Your task to perform on an android device: Is it going to rain today? Image 0: 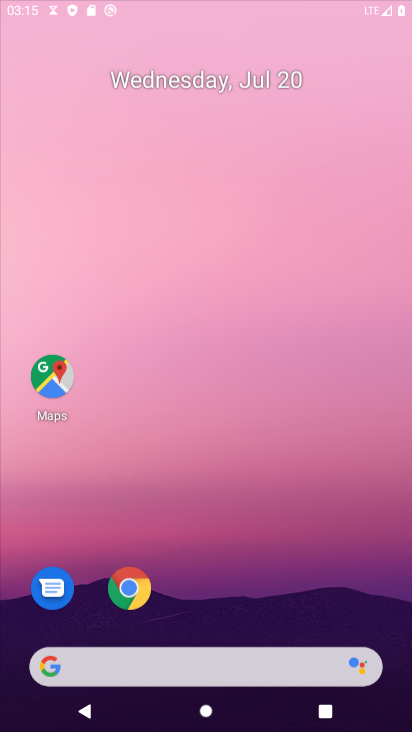
Step 0: drag from (222, 333) to (384, 17)
Your task to perform on an android device: Is it going to rain today? Image 1: 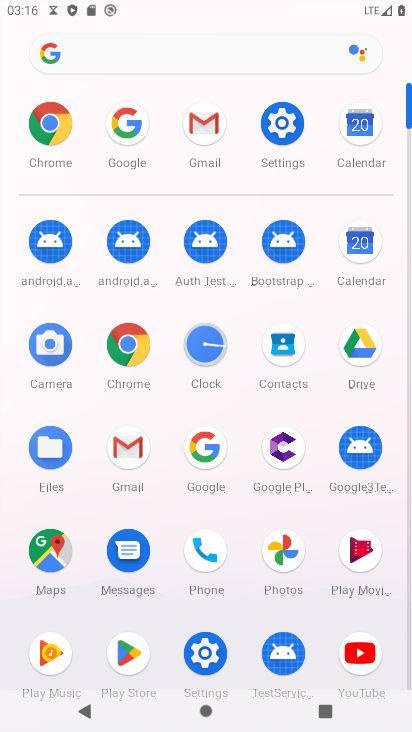
Step 1: click (209, 43)
Your task to perform on an android device: Is it going to rain today? Image 2: 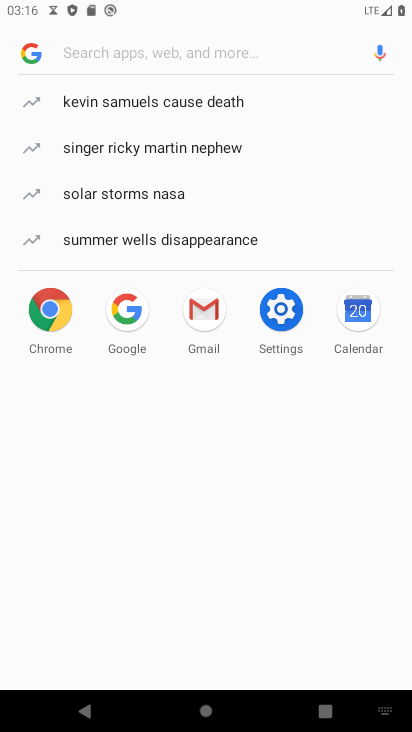
Step 2: type "Is it going to rain today?"
Your task to perform on an android device: Is it going to rain today? Image 3: 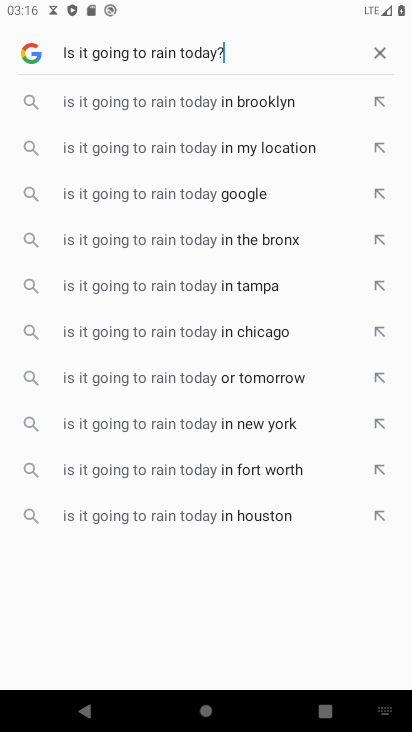
Step 3: type ""
Your task to perform on an android device: Is it going to rain today? Image 4: 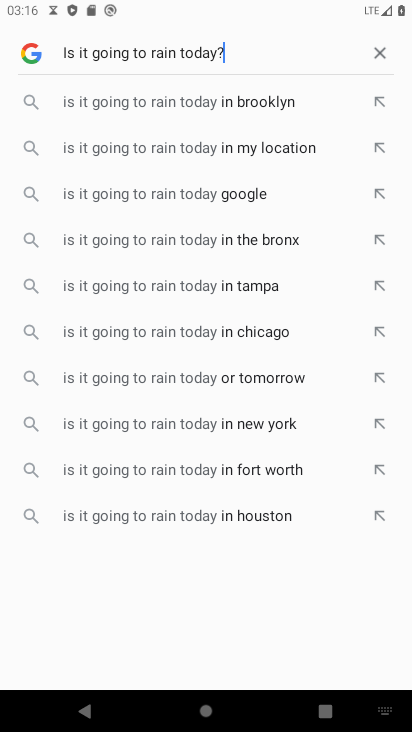
Step 4: click (180, 192)
Your task to perform on an android device: Is it going to rain today? Image 5: 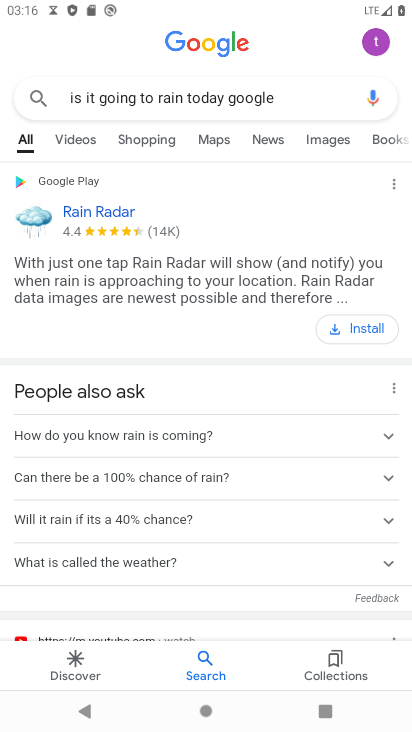
Step 5: task complete